Your task to perform on an android device: Search for Italian restaurants on Maps Image 0: 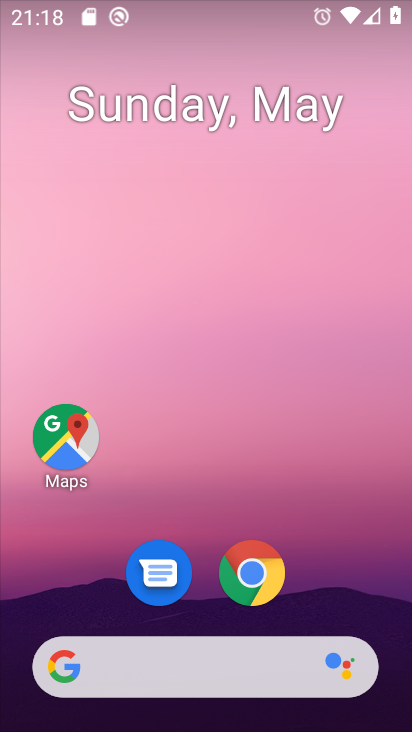
Step 0: click (65, 447)
Your task to perform on an android device: Search for Italian restaurants on Maps Image 1: 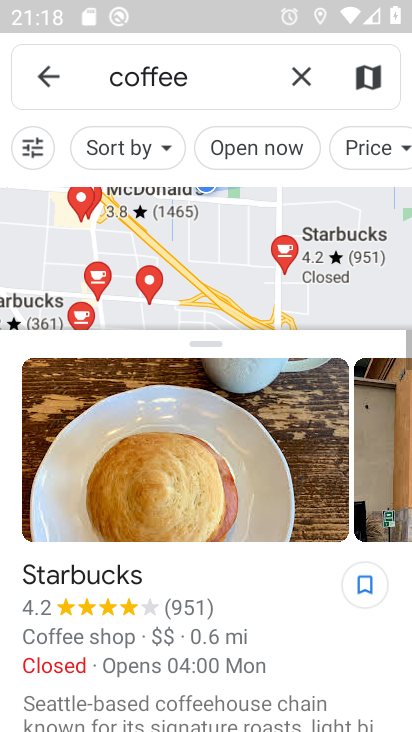
Step 1: click (304, 71)
Your task to perform on an android device: Search for Italian restaurants on Maps Image 2: 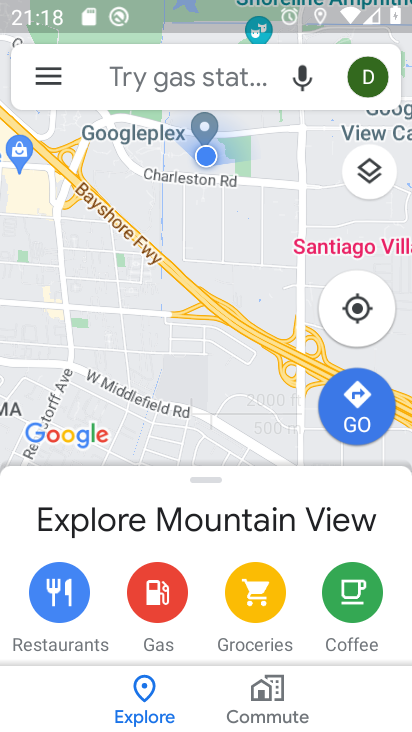
Step 2: click (141, 70)
Your task to perform on an android device: Search for Italian restaurants on Maps Image 3: 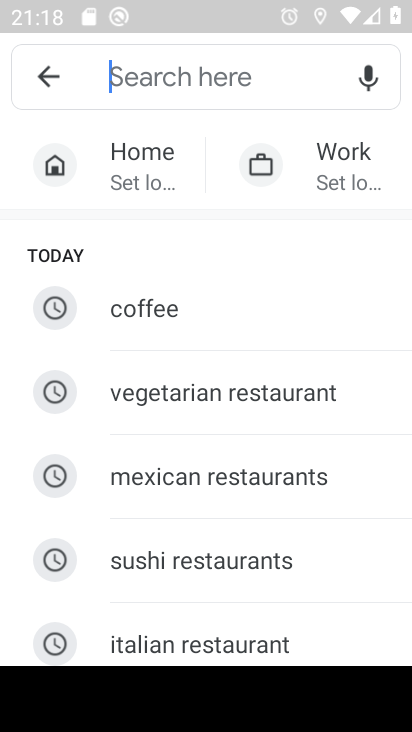
Step 3: click (191, 635)
Your task to perform on an android device: Search for Italian restaurants on Maps Image 4: 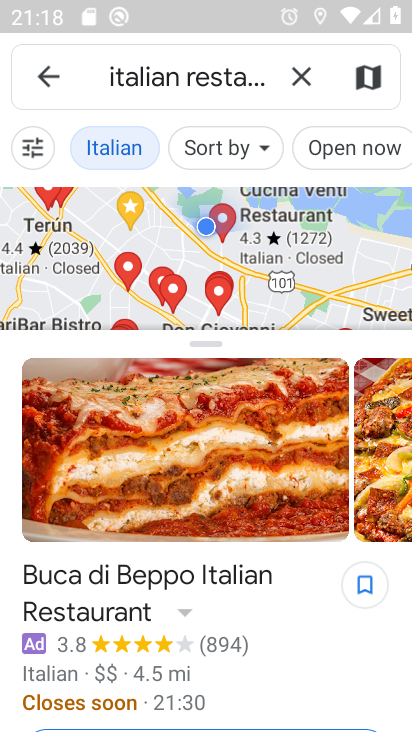
Step 4: task complete